Your task to perform on an android device: turn on priority inbox in the gmail app Image 0: 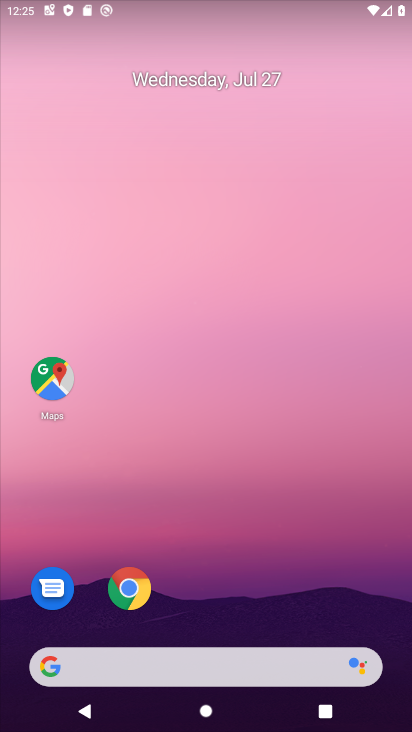
Step 0: drag from (45, 707) to (376, 11)
Your task to perform on an android device: turn on priority inbox in the gmail app Image 1: 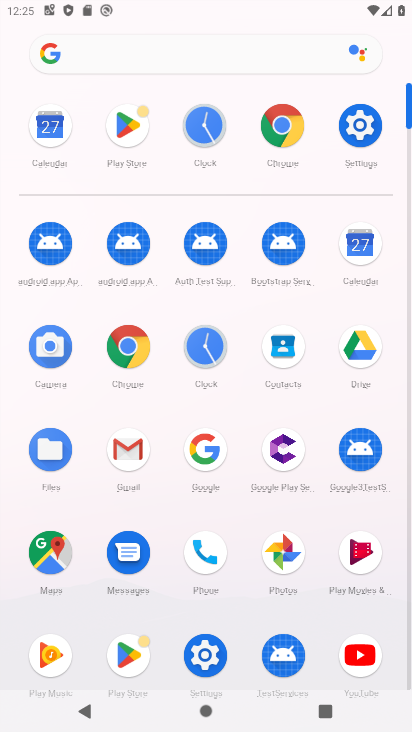
Step 1: click (133, 451)
Your task to perform on an android device: turn on priority inbox in the gmail app Image 2: 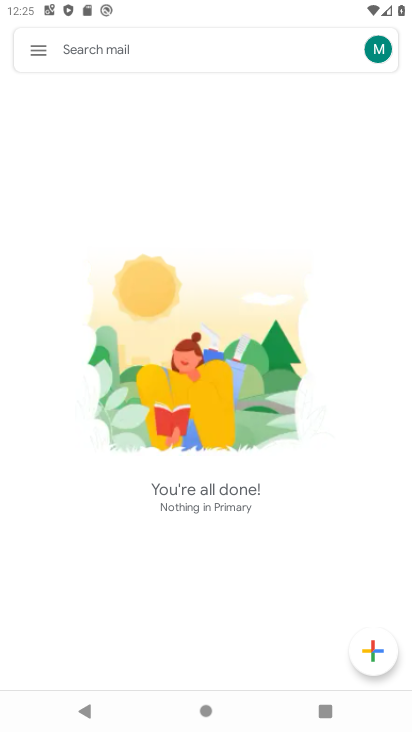
Step 2: click (37, 59)
Your task to perform on an android device: turn on priority inbox in the gmail app Image 3: 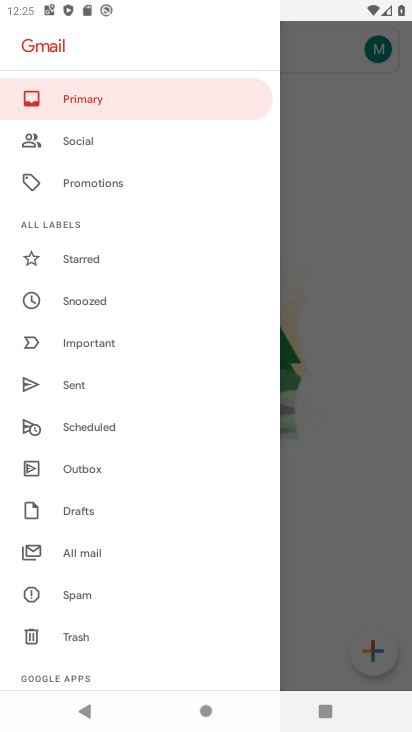
Step 3: drag from (133, 638) to (181, 215)
Your task to perform on an android device: turn on priority inbox in the gmail app Image 4: 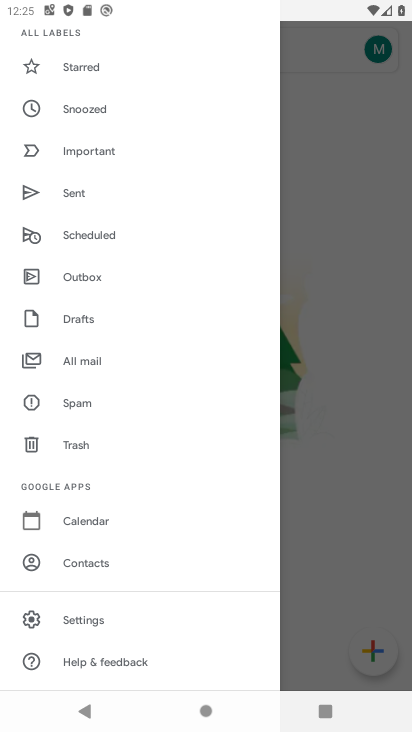
Step 4: click (78, 621)
Your task to perform on an android device: turn on priority inbox in the gmail app Image 5: 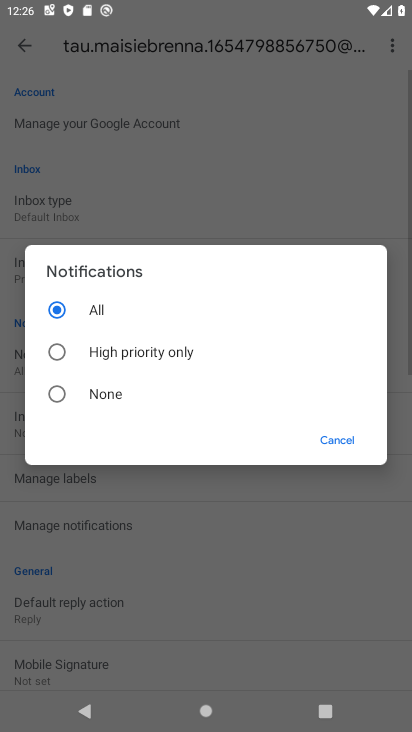
Step 5: click (325, 445)
Your task to perform on an android device: turn on priority inbox in the gmail app Image 6: 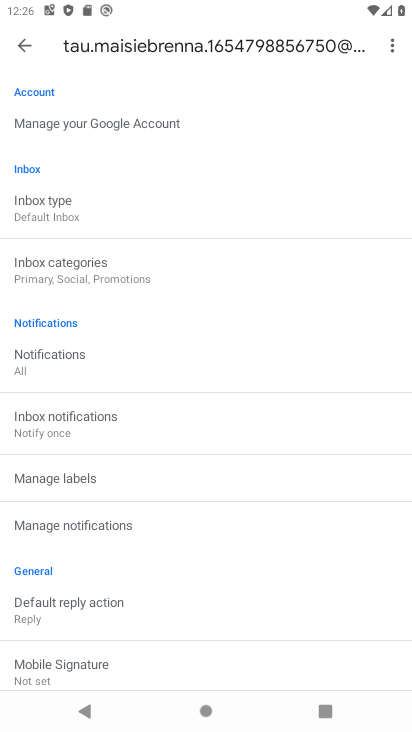
Step 6: click (118, 208)
Your task to perform on an android device: turn on priority inbox in the gmail app Image 7: 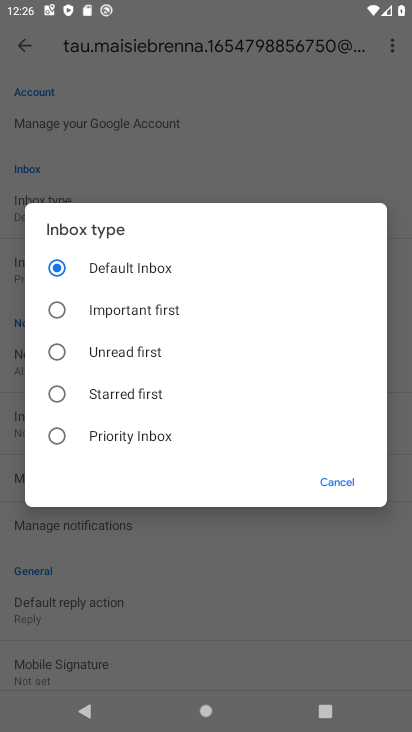
Step 7: click (59, 437)
Your task to perform on an android device: turn on priority inbox in the gmail app Image 8: 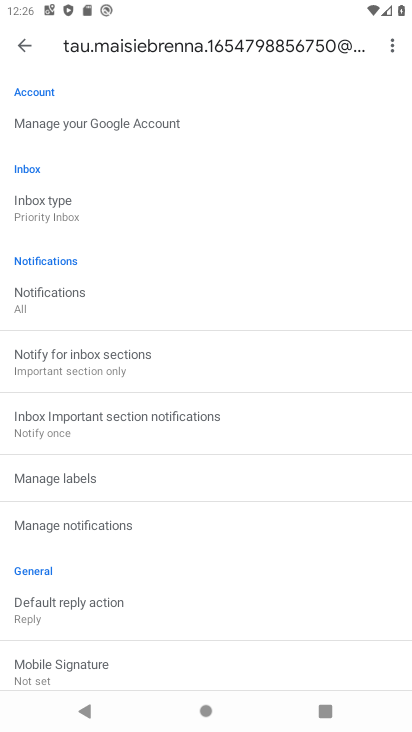
Step 8: task complete